Your task to perform on an android device: change the clock display to analog Image 0: 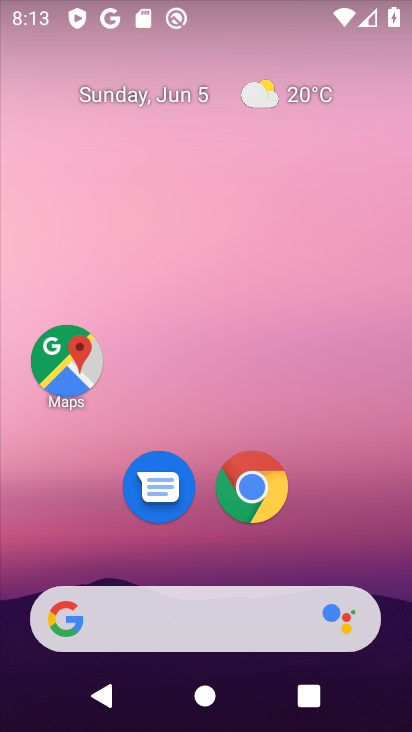
Step 0: drag from (206, 597) to (256, 107)
Your task to perform on an android device: change the clock display to analog Image 1: 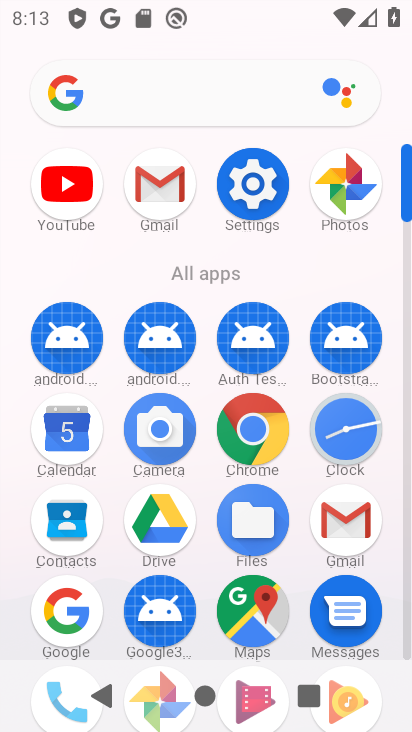
Step 1: click (352, 438)
Your task to perform on an android device: change the clock display to analog Image 2: 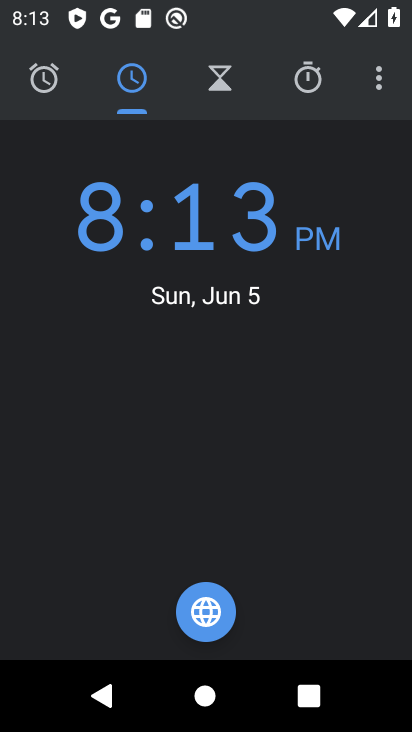
Step 2: click (376, 76)
Your task to perform on an android device: change the clock display to analog Image 3: 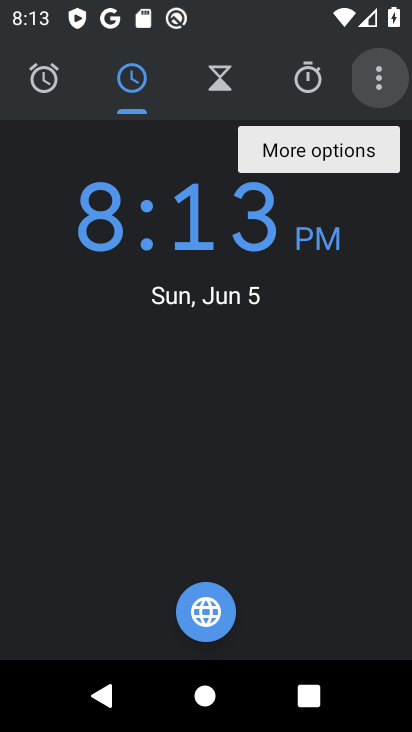
Step 3: click (375, 83)
Your task to perform on an android device: change the clock display to analog Image 4: 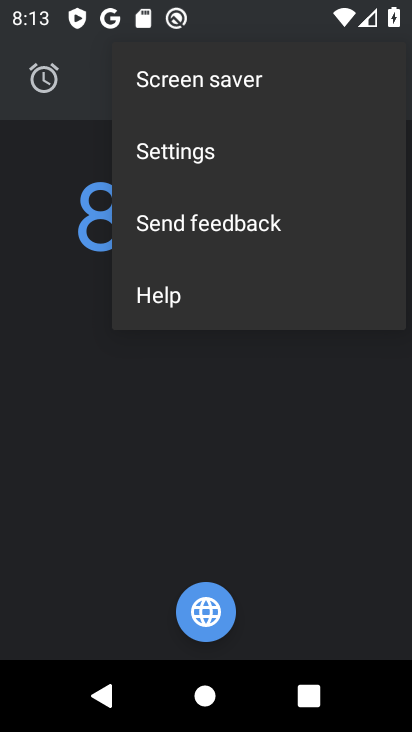
Step 4: click (190, 148)
Your task to perform on an android device: change the clock display to analog Image 5: 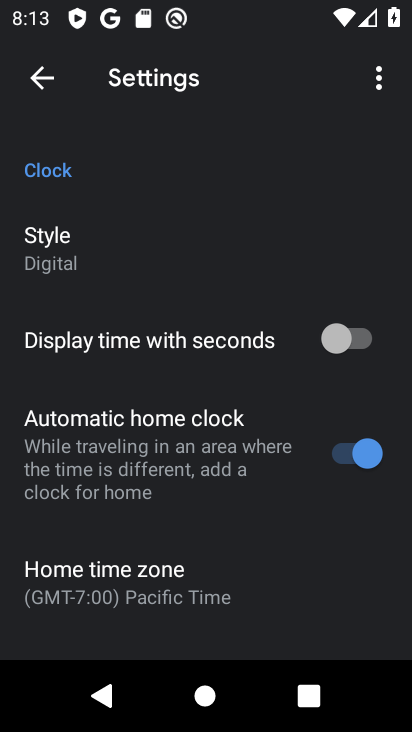
Step 5: click (66, 249)
Your task to perform on an android device: change the clock display to analog Image 6: 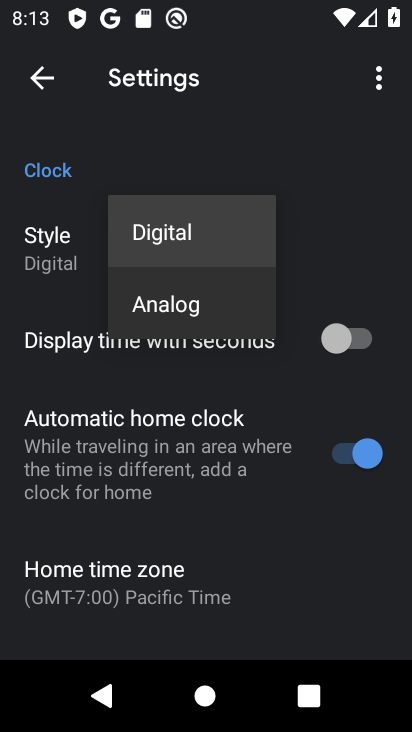
Step 6: click (154, 306)
Your task to perform on an android device: change the clock display to analog Image 7: 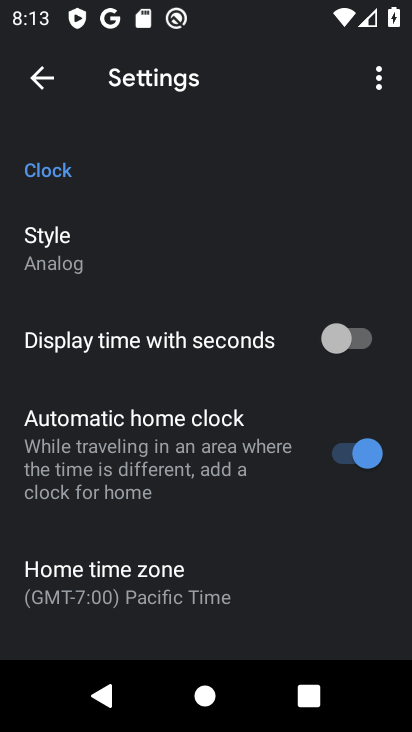
Step 7: task complete